Your task to perform on an android device: Turn on the flashlight Image 0: 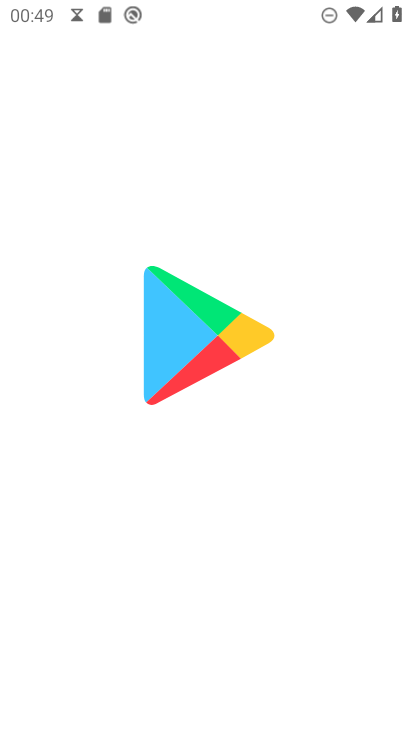
Step 0: click (245, 578)
Your task to perform on an android device: Turn on the flashlight Image 1: 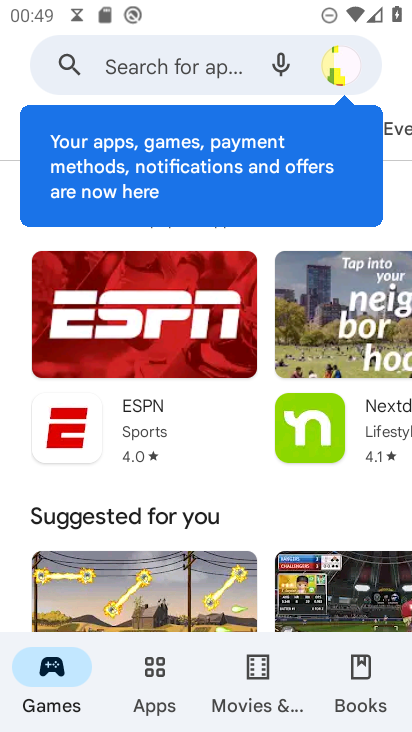
Step 1: press home button
Your task to perform on an android device: Turn on the flashlight Image 2: 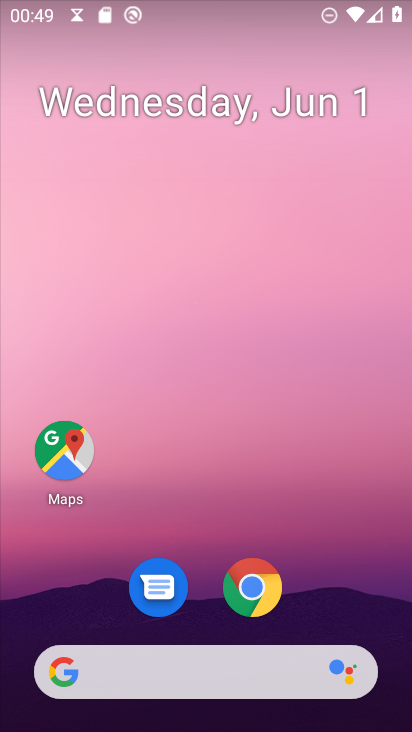
Step 2: drag from (302, 495) to (354, 47)
Your task to perform on an android device: Turn on the flashlight Image 3: 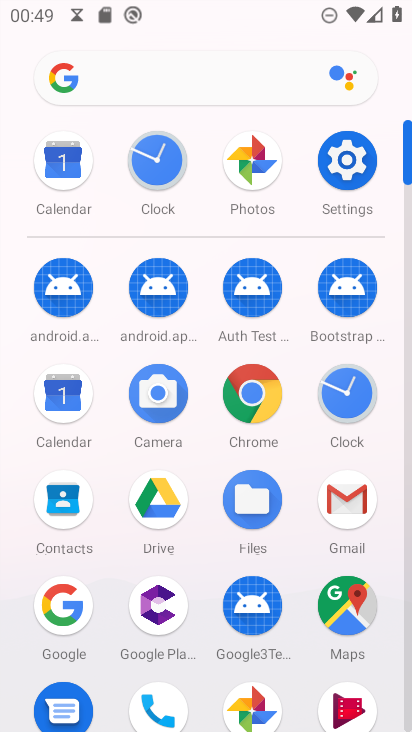
Step 3: click (340, 163)
Your task to perform on an android device: Turn on the flashlight Image 4: 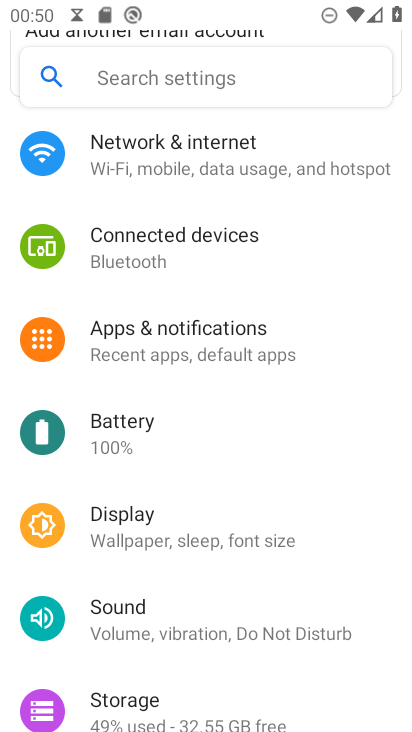
Step 4: task complete